Your task to perform on an android device: set an alarm Image 0: 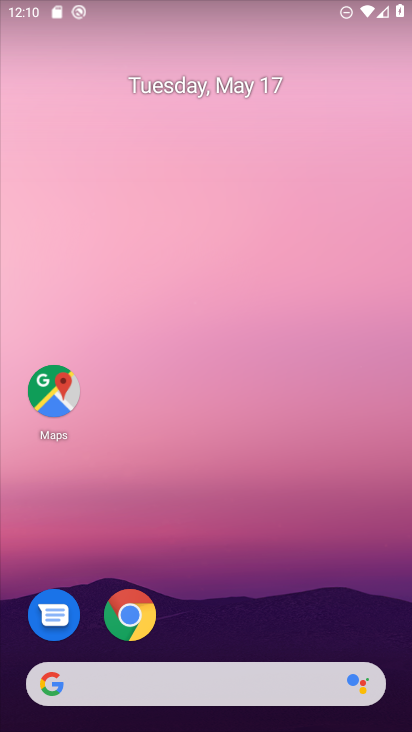
Step 0: drag from (142, 651) to (298, 237)
Your task to perform on an android device: set an alarm Image 1: 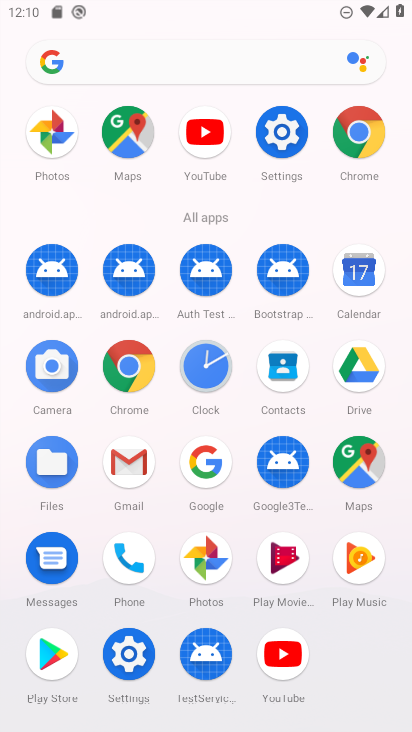
Step 1: click (206, 377)
Your task to perform on an android device: set an alarm Image 2: 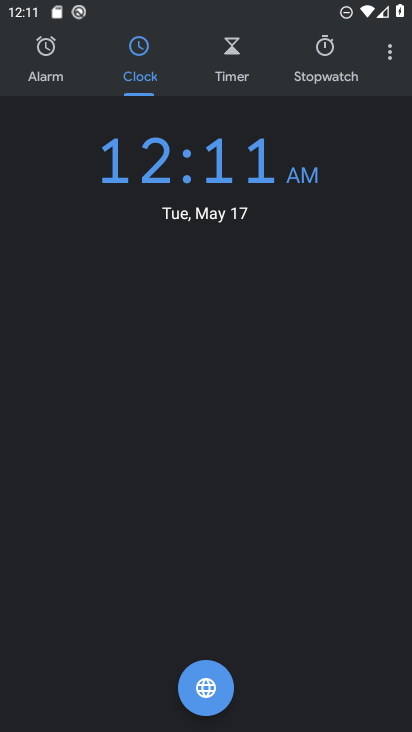
Step 2: click (61, 52)
Your task to perform on an android device: set an alarm Image 3: 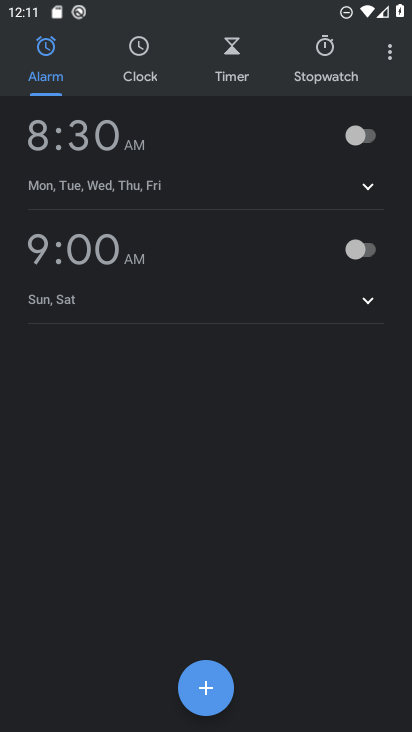
Step 3: click (368, 140)
Your task to perform on an android device: set an alarm Image 4: 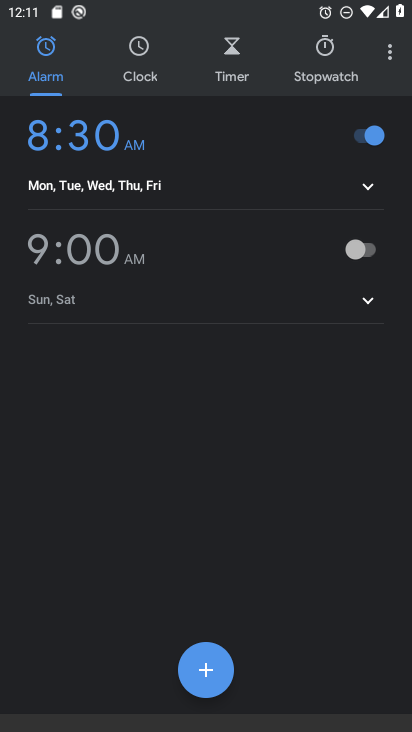
Step 4: task complete